Your task to perform on an android device: What's the weather going to be this weekend? Image 0: 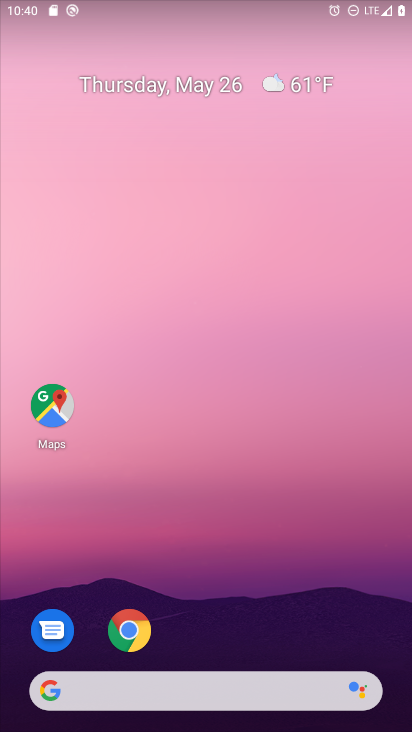
Step 0: click (230, 676)
Your task to perform on an android device: What's the weather going to be this weekend? Image 1: 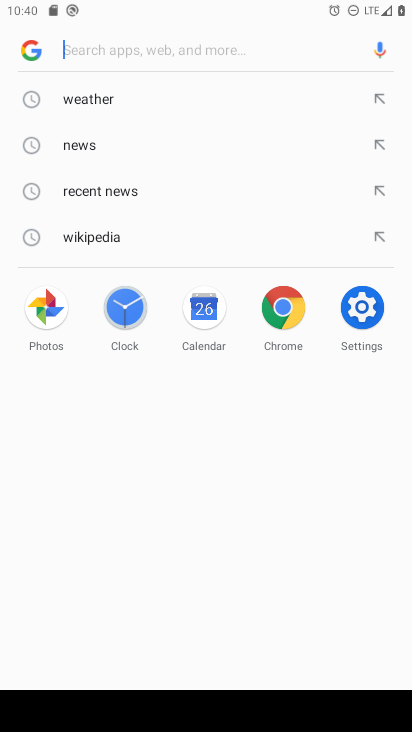
Step 1: click (119, 96)
Your task to perform on an android device: What's the weather going to be this weekend? Image 2: 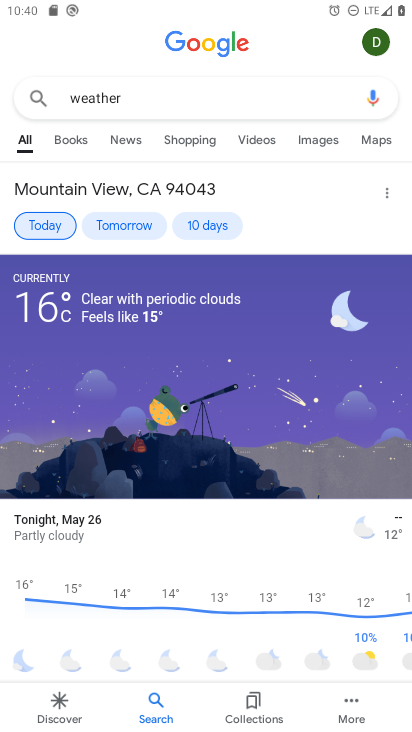
Step 2: click (206, 232)
Your task to perform on an android device: What's the weather going to be this weekend? Image 3: 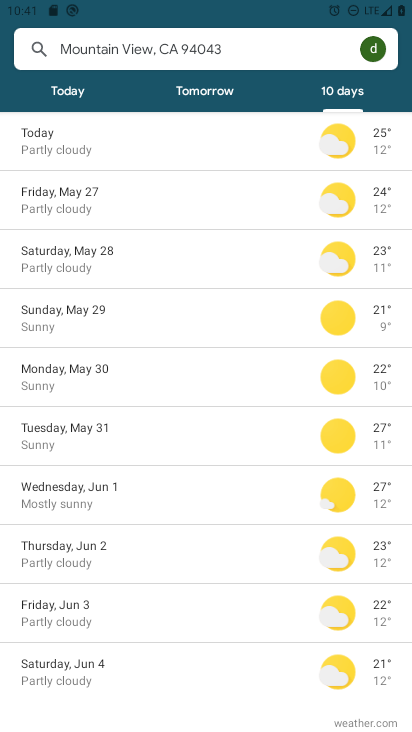
Step 3: task complete